Your task to perform on an android device: change the clock display to analog Image 0: 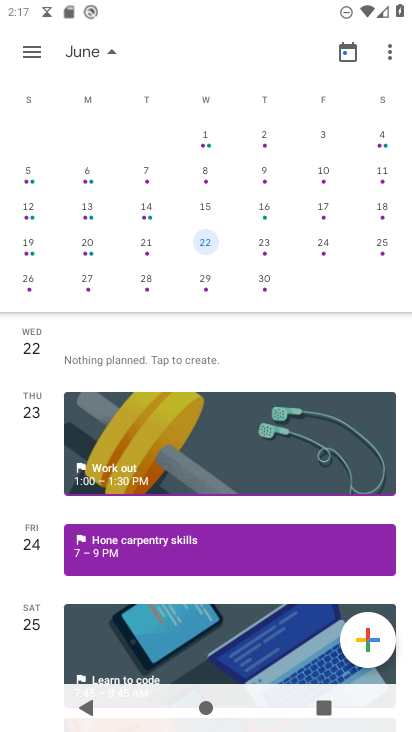
Step 0: press home button
Your task to perform on an android device: change the clock display to analog Image 1: 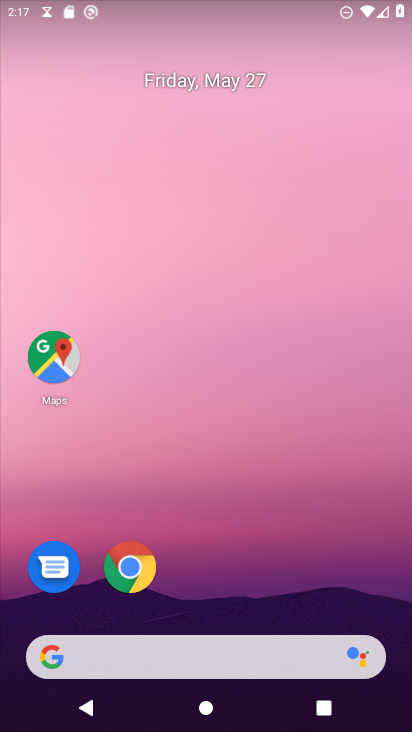
Step 1: drag from (202, 619) to (197, 59)
Your task to perform on an android device: change the clock display to analog Image 2: 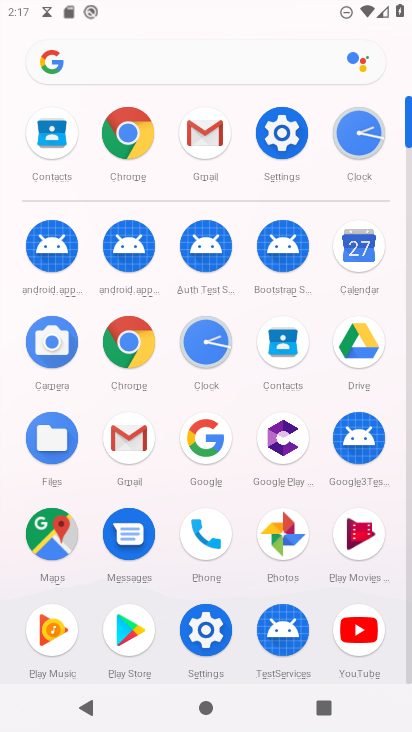
Step 2: click (210, 344)
Your task to perform on an android device: change the clock display to analog Image 3: 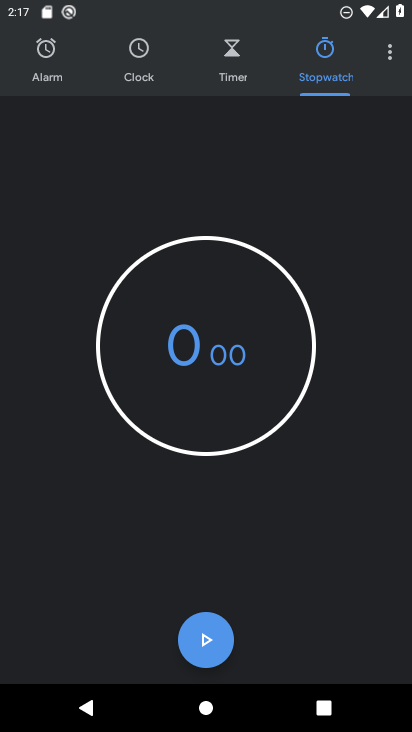
Step 3: click (383, 60)
Your task to perform on an android device: change the clock display to analog Image 4: 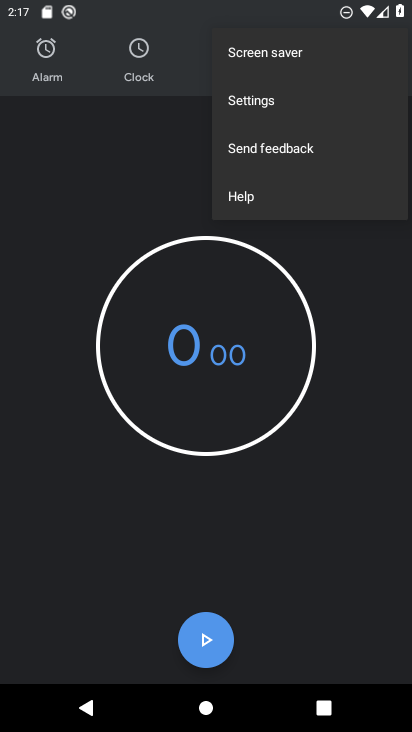
Step 4: click (304, 93)
Your task to perform on an android device: change the clock display to analog Image 5: 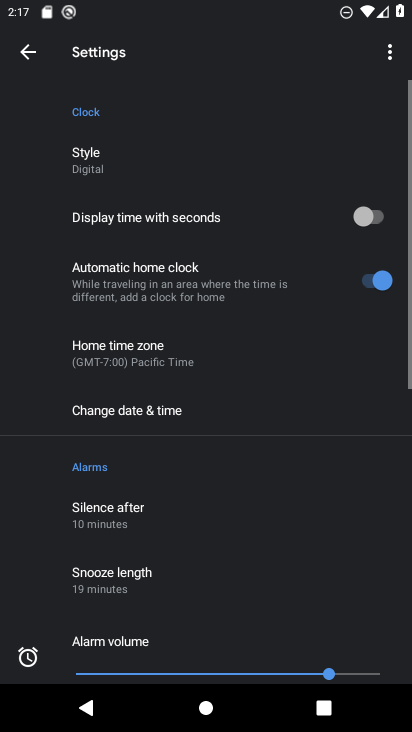
Step 5: click (190, 160)
Your task to perform on an android device: change the clock display to analog Image 6: 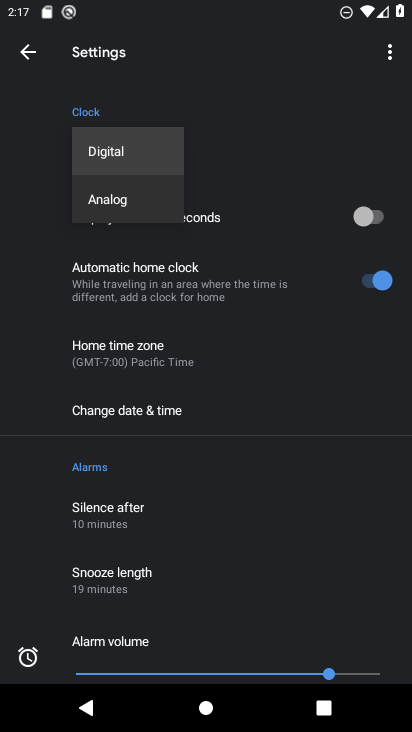
Step 6: click (160, 196)
Your task to perform on an android device: change the clock display to analog Image 7: 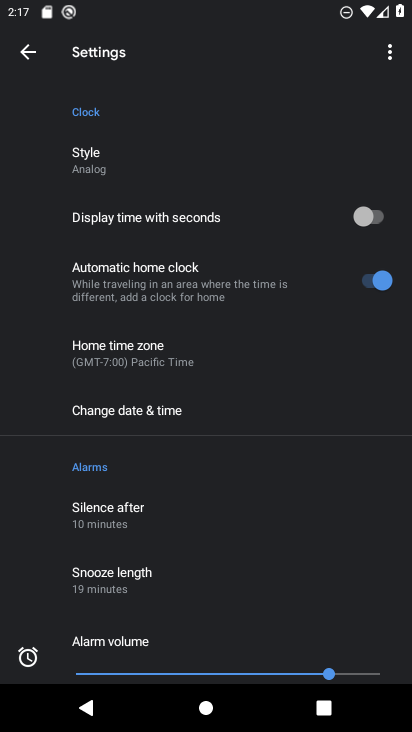
Step 7: task complete